Your task to perform on an android device: turn on showing notifications on the lock screen Image 0: 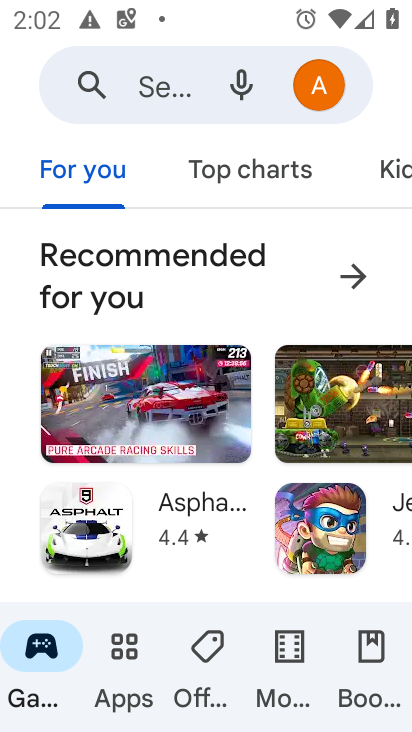
Step 0: press home button
Your task to perform on an android device: turn on showing notifications on the lock screen Image 1: 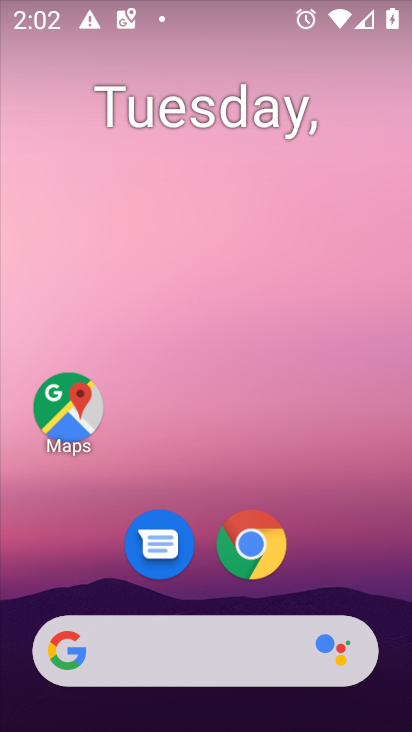
Step 1: drag from (313, 554) to (262, 0)
Your task to perform on an android device: turn on showing notifications on the lock screen Image 2: 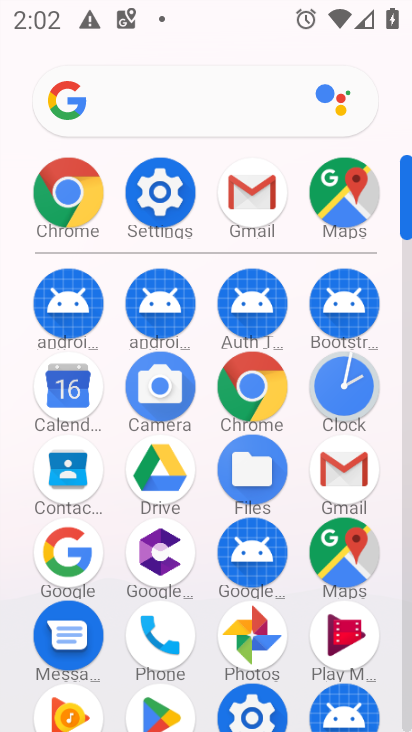
Step 2: click (235, 711)
Your task to perform on an android device: turn on showing notifications on the lock screen Image 3: 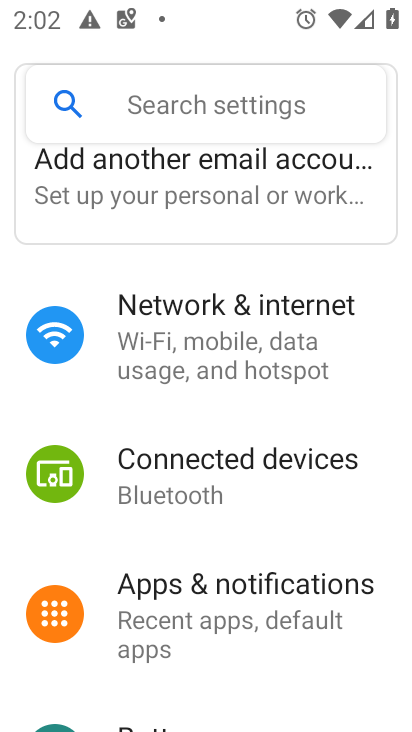
Step 3: click (277, 613)
Your task to perform on an android device: turn on showing notifications on the lock screen Image 4: 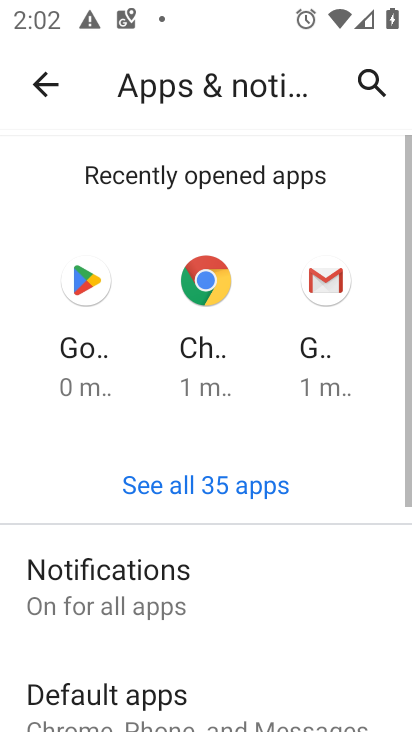
Step 4: click (94, 574)
Your task to perform on an android device: turn on showing notifications on the lock screen Image 5: 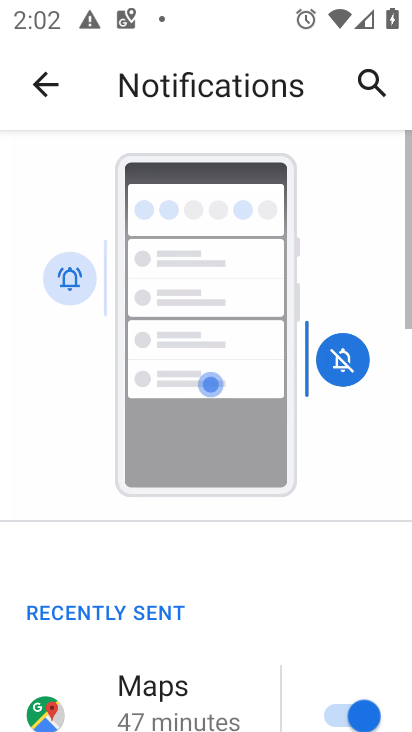
Step 5: drag from (269, 639) to (263, 81)
Your task to perform on an android device: turn on showing notifications on the lock screen Image 6: 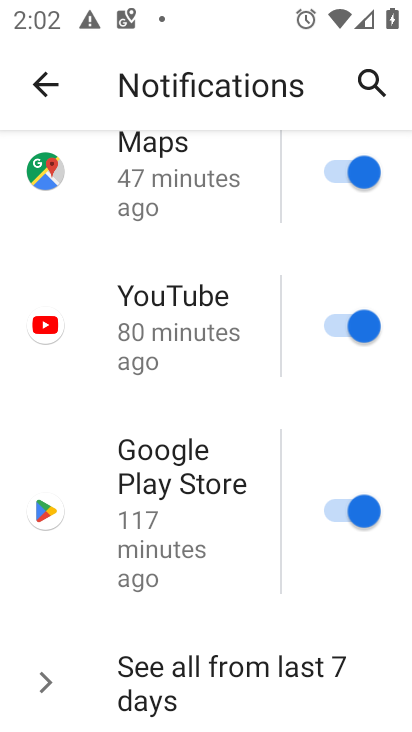
Step 6: drag from (162, 518) to (186, 89)
Your task to perform on an android device: turn on showing notifications on the lock screen Image 7: 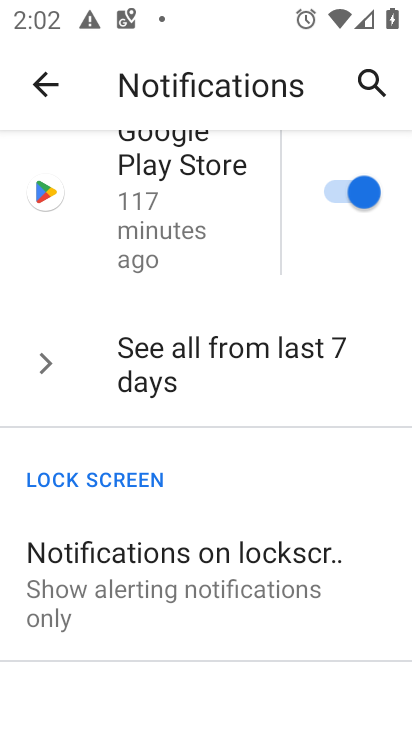
Step 7: click (241, 586)
Your task to perform on an android device: turn on showing notifications on the lock screen Image 8: 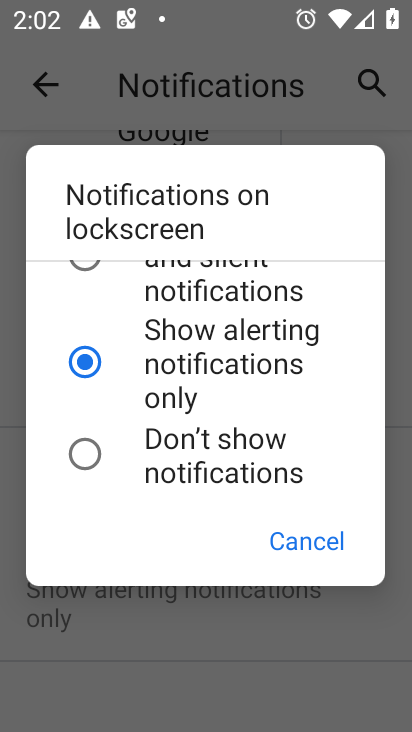
Step 8: click (216, 274)
Your task to perform on an android device: turn on showing notifications on the lock screen Image 9: 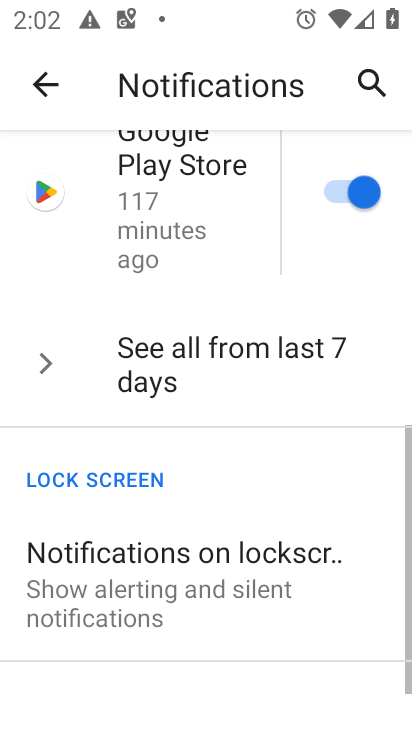
Step 9: task complete